Your task to perform on an android device: turn on priority inbox in the gmail app Image 0: 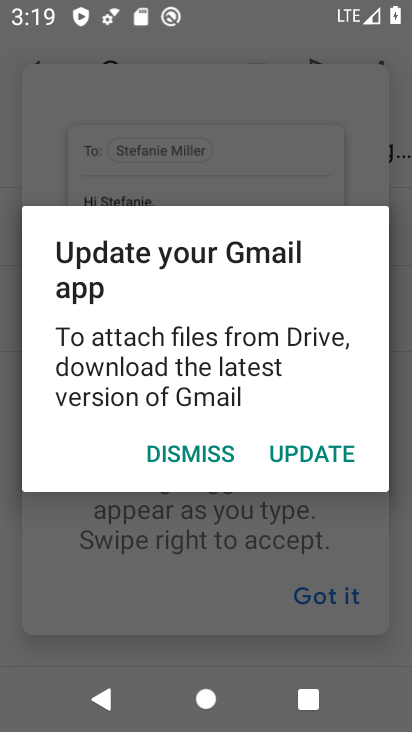
Step 0: press home button
Your task to perform on an android device: turn on priority inbox in the gmail app Image 1: 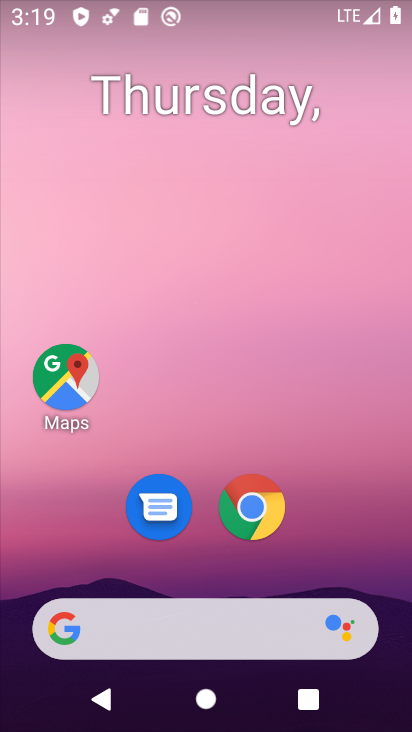
Step 1: drag from (337, 545) to (284, 0)
Your task to perform on an android device: turn on priority inbox in the gmail app Image 2: 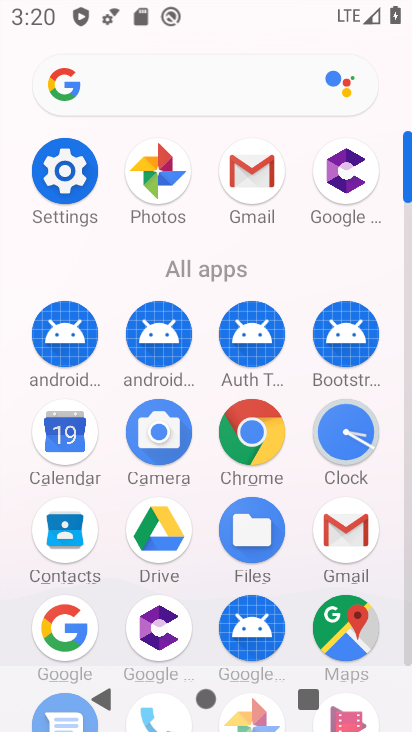
Step 2: click (253, 184)
Your task to perform on an android device: turn on priority inbox in the gmail app Image 3: 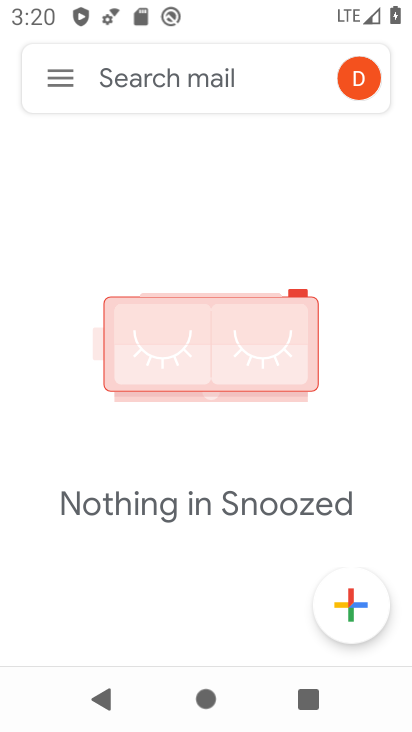
Step 3: click (58, 84)
Your task to perform on an android device: turn on priority inbox in the gmail app Image 4: 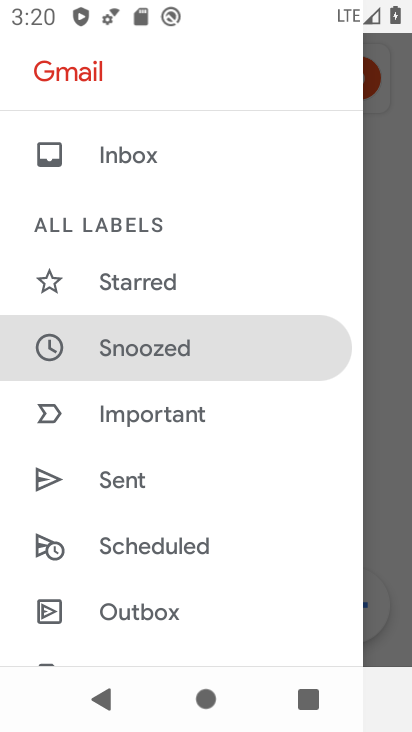
Step 4: drag from (151, 593) to (207, 302)
Your task to perform on an android device: turn on priority inbox in the gmail app Image 5: 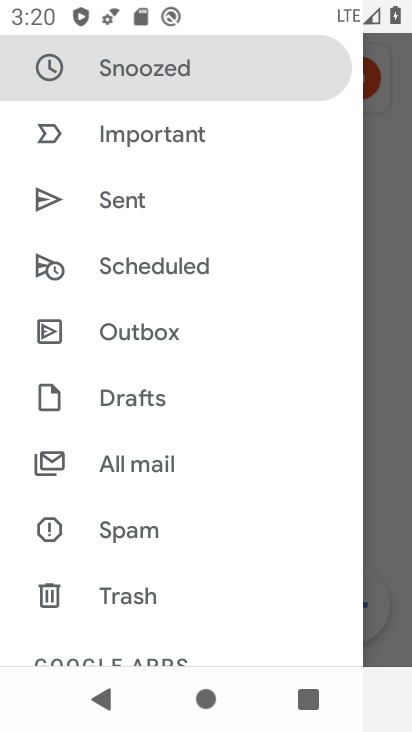
Step 5: drag from (154, 593) to (202, 48)
Your task to perform on an android device: turn on priority inbox in the gmail app Image 6: 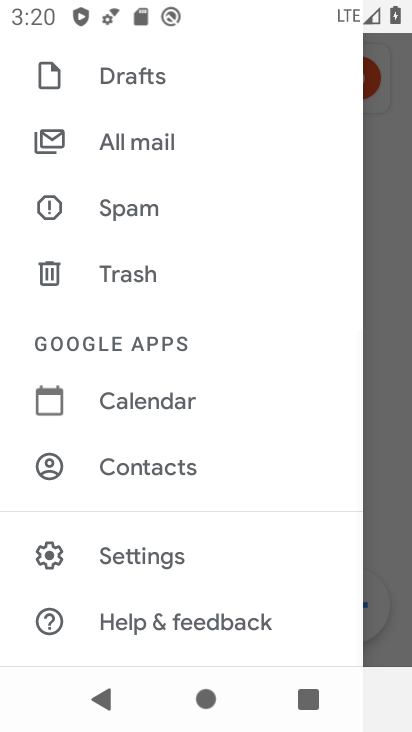
Step 6: click (149, 554)
Your task to perform on an android device: turn on priority inbox in the gmail app Image 7: 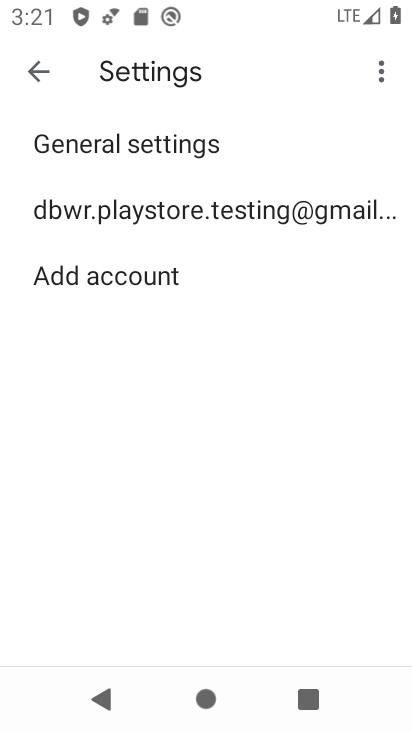
Step 7: click (265, 212)
Your task to perform on an android device: turn on priority inbox in the gmail app Image 8: 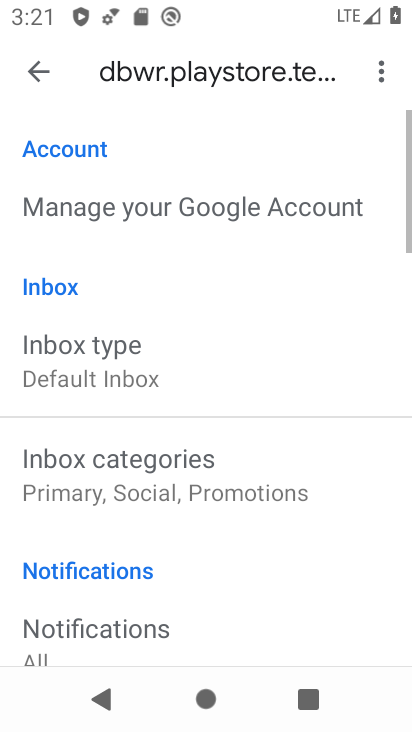
Step 8: click (164, 369)
Your task to perform on an android device: turn on priority inbox in the gmail app Image 9: 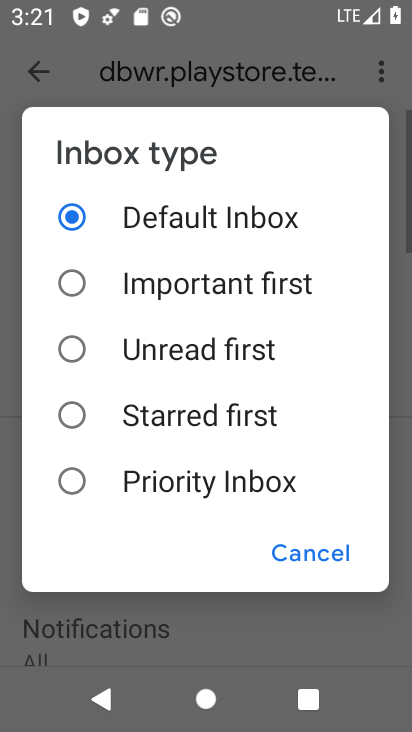
Step 9: click (106, 490)
Your task to perform on an android device: turn on priority inbox in the gmail app Image 10: 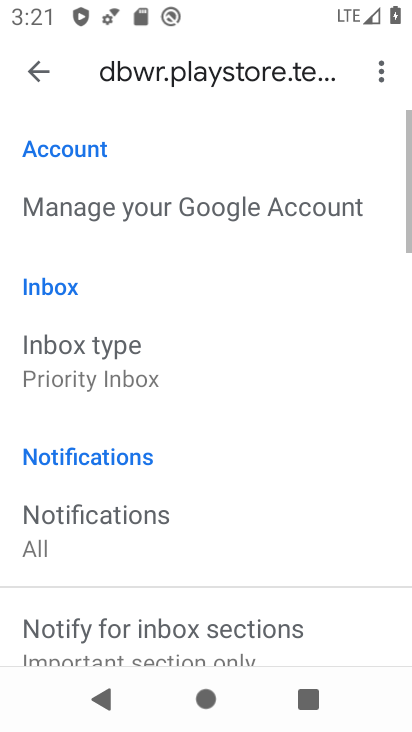
Step 10: task complete